Your task to perform on an android device: Toggle the flashlight Image 0: 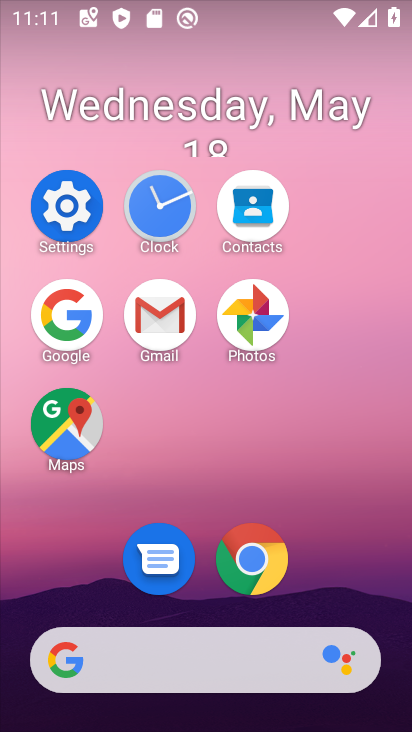
Step 0: drag from (281, 51) to (266, 434)
Your task to perform on an android device: Toggle the flashlight Image 1: 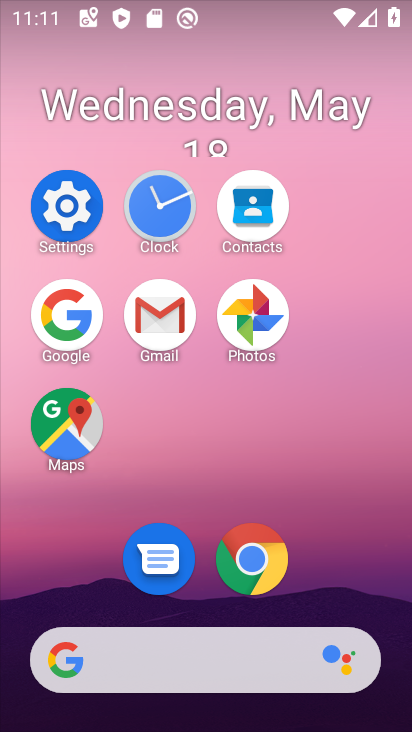
Step 1: task complete